Your task to perform on an android device: Search for Mexican restaurants on Maps Image 0: 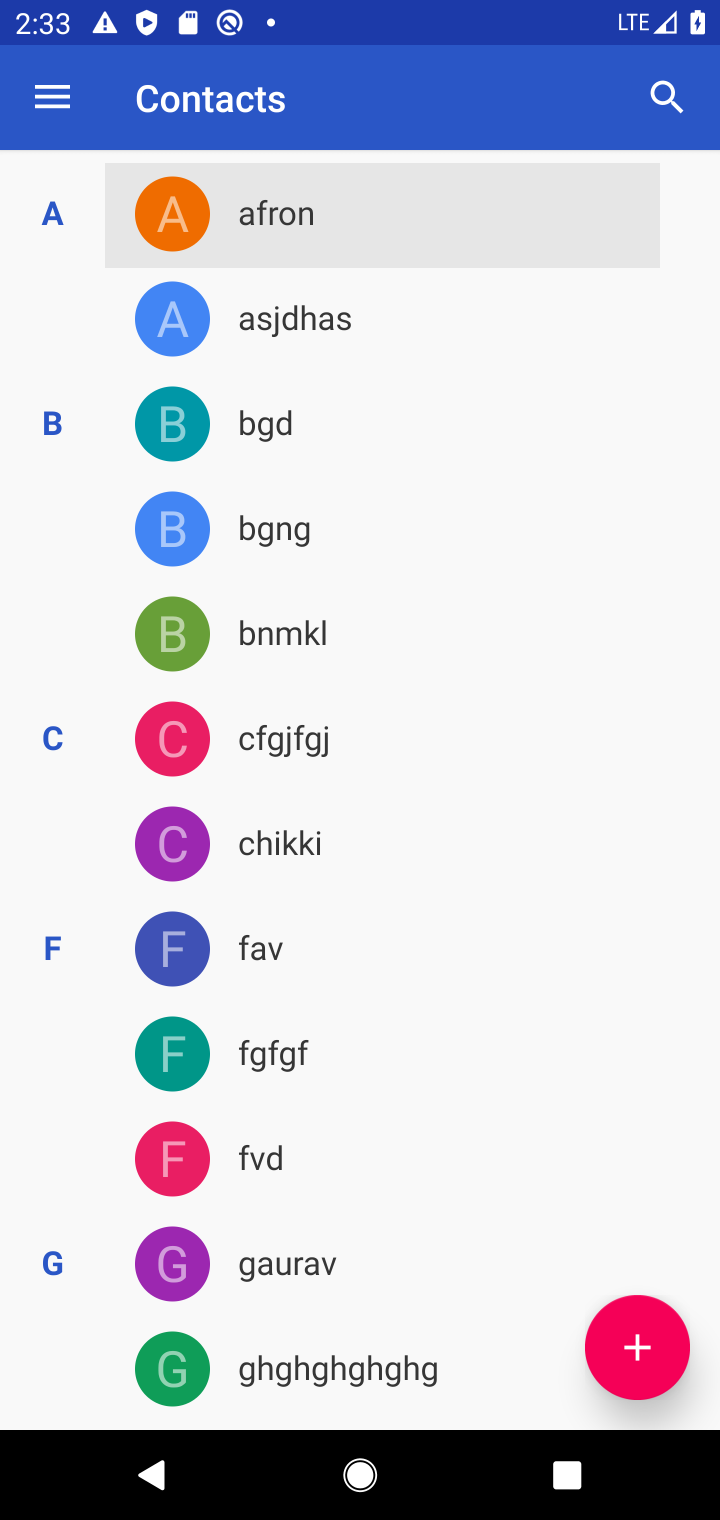
Step 0: press back button
Your task to perform on an android device: Search for Mexican restaurants on Maps Image 1: 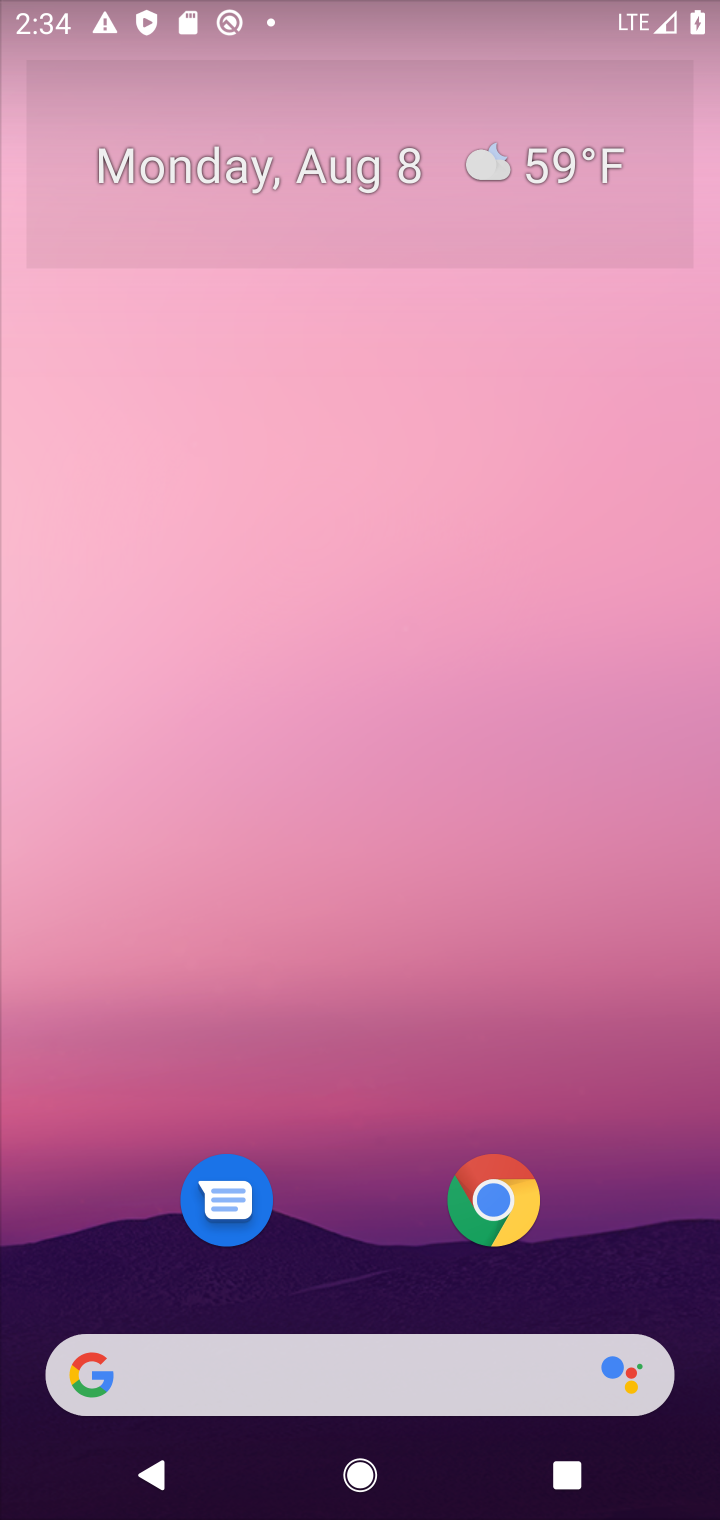
Step 1: drag from (298, 1012) to (489, 159)
Your task to perform on an android device: Search for Mexican restaurants on Maps Image 2: 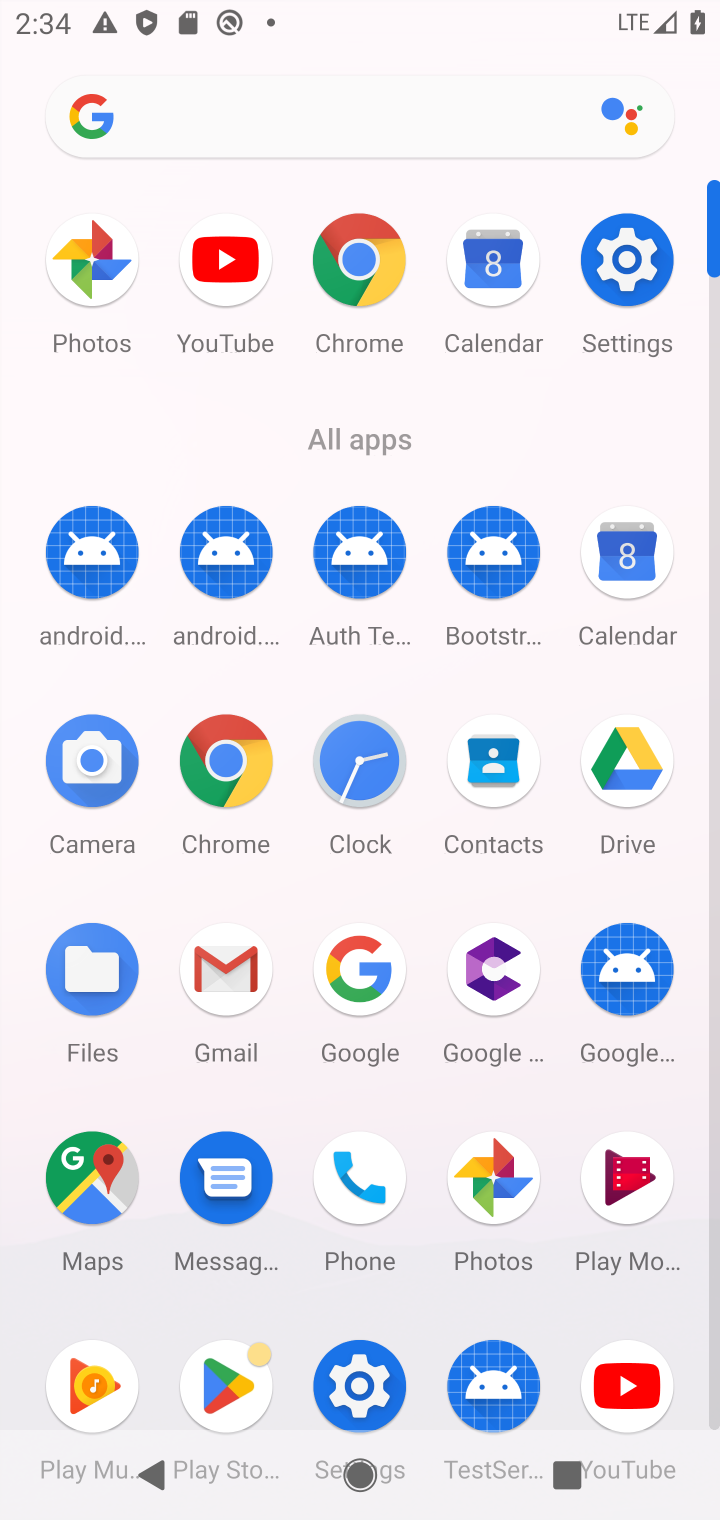
Step 2: click (94, 1177)
Your task to perform on an android device: Search for Mexican restaurants on Maps Image 3: 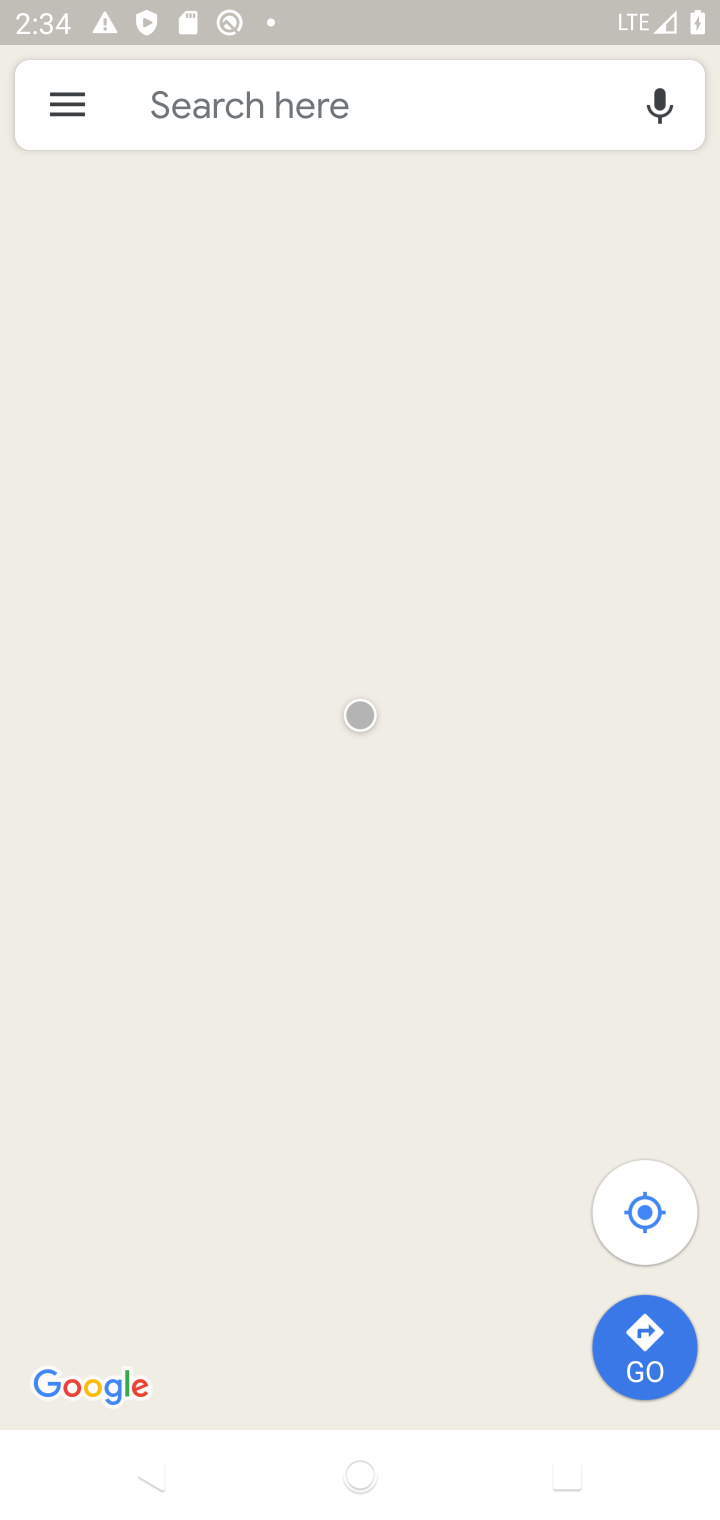
Step 3: click (247, 98)
Your task to perform on an android device: Search for Mexican restaurants on Maps Image 4: 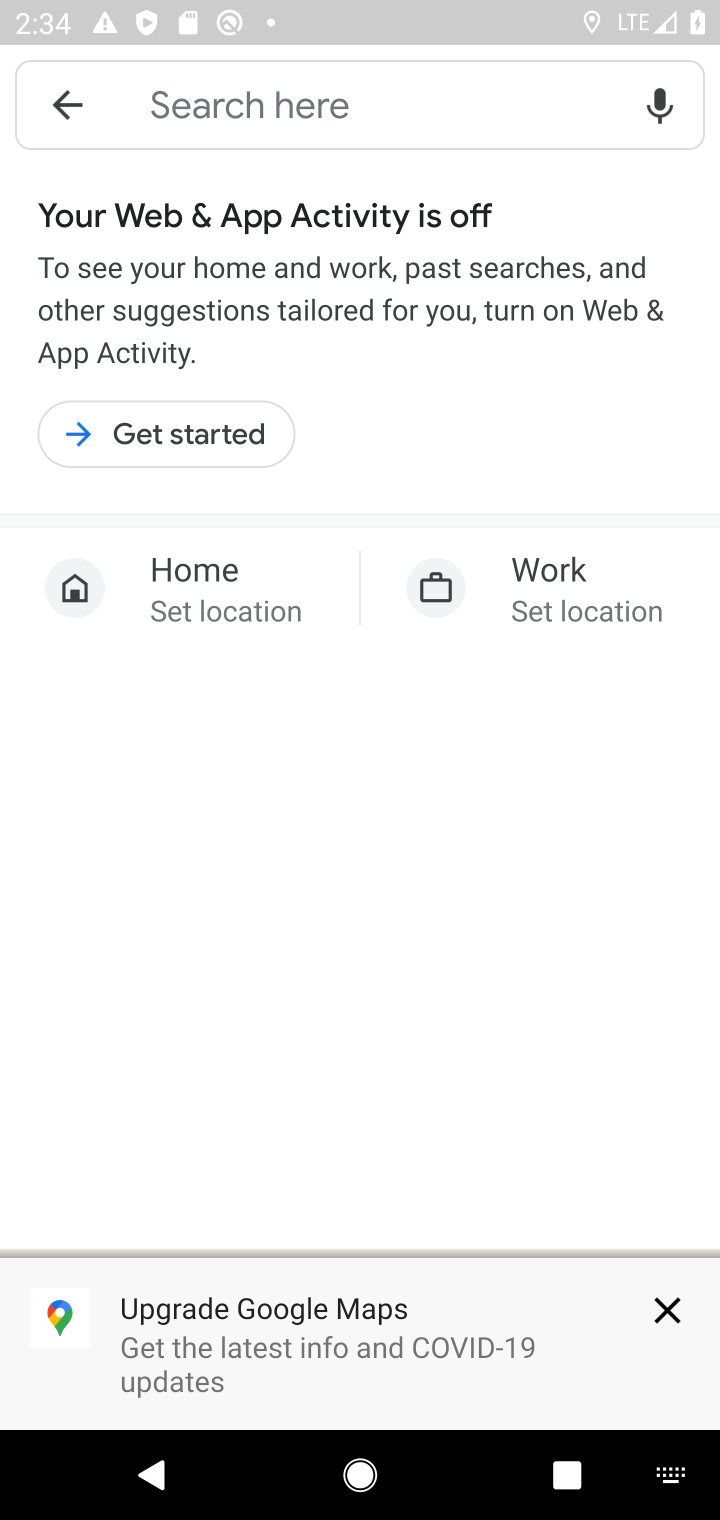
Step 4: type "mexican restaurants"
Your task to perform on an android device: Search for Mexican restaurants on Maps Image 5: 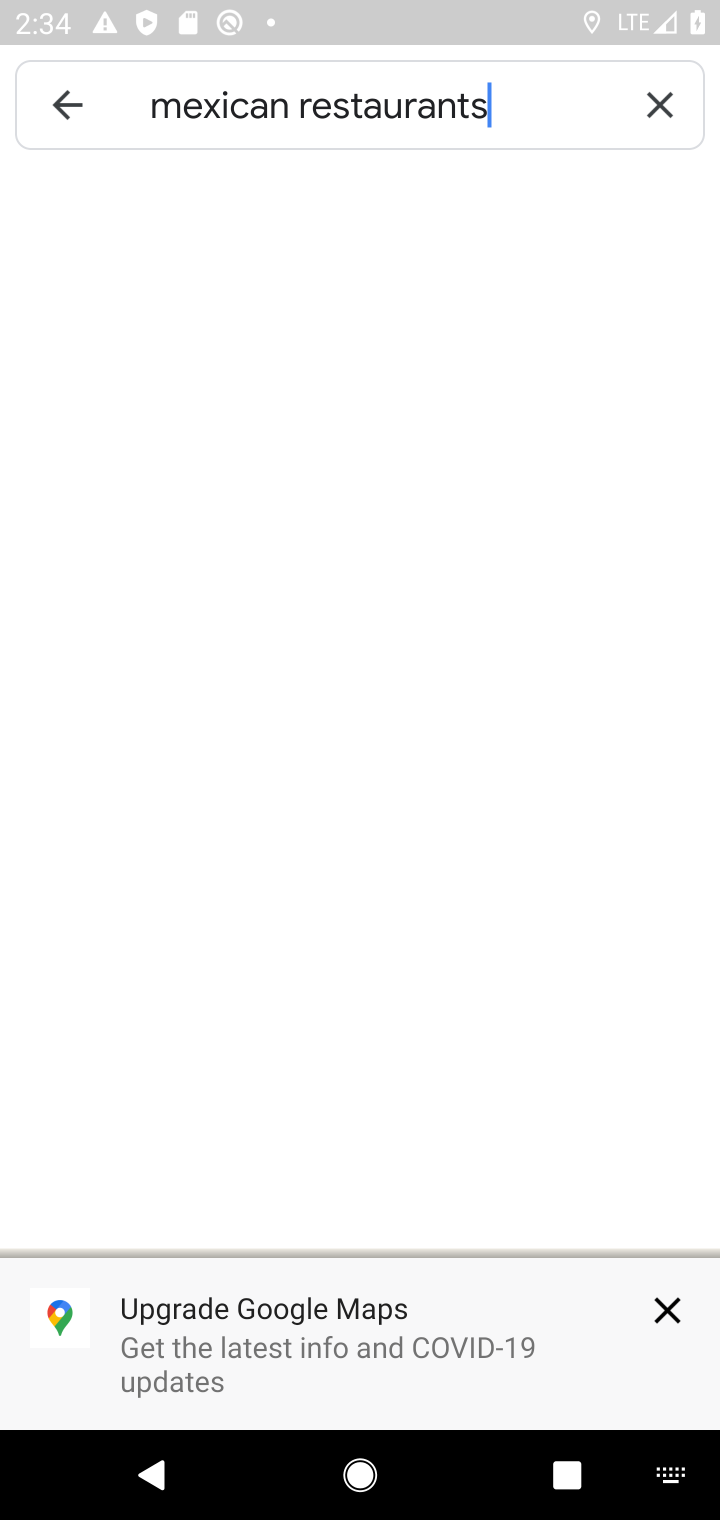
Step 5: click (344, 111)
Your task to perform on an android device: Search for Mexican restaurants on Maps Image 6: 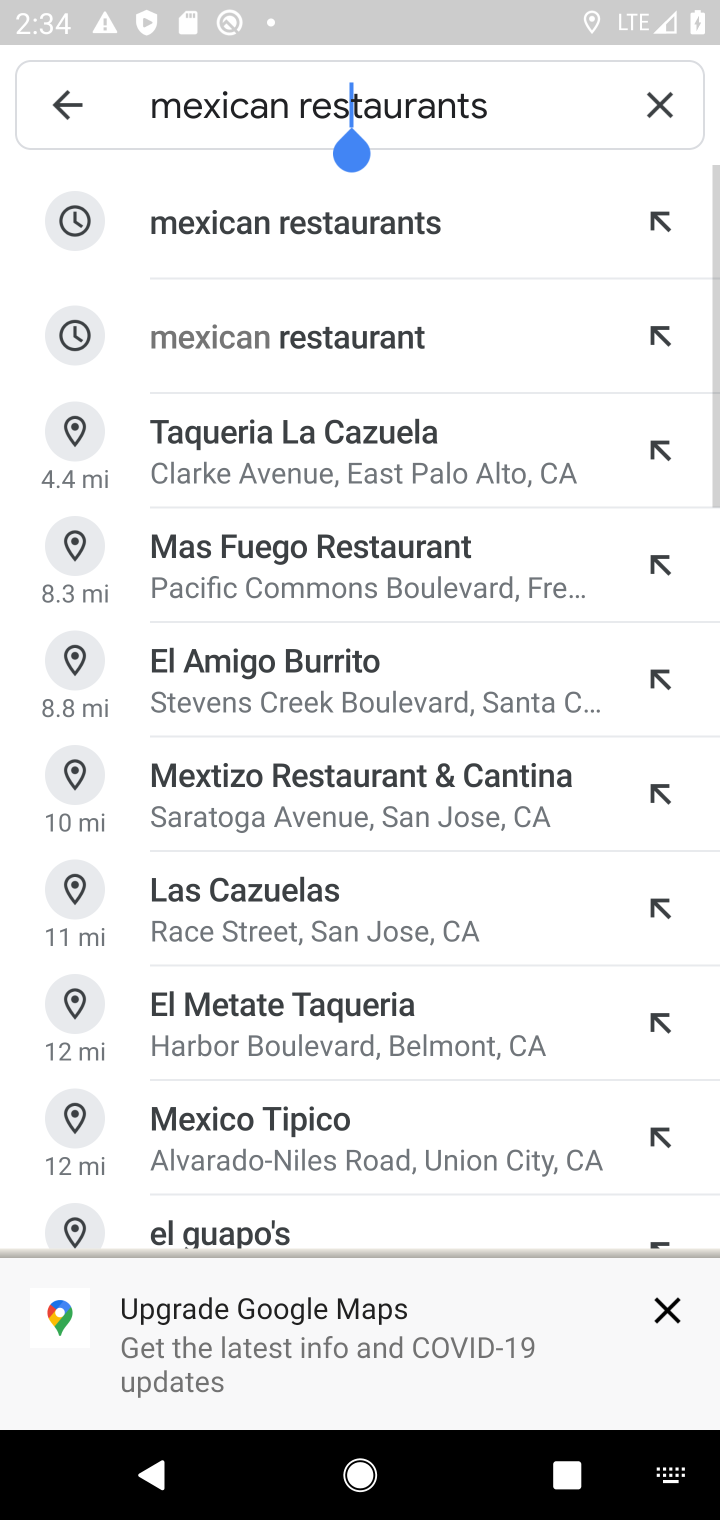
Step 6: click (298, 193)
Your task to perform on an android device: Search for Mexican restaurants on Maps Image 7: 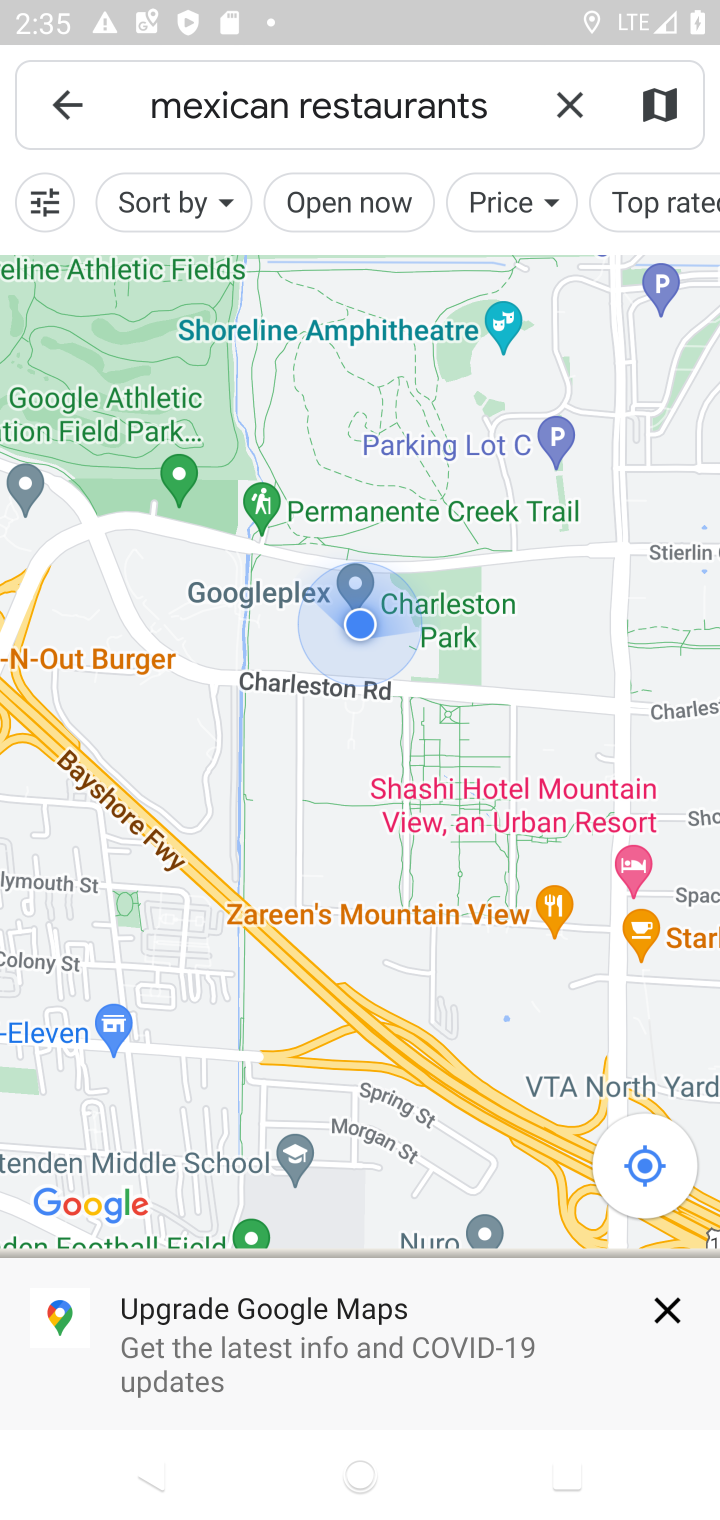
Step 7: click (539, 109)
Your task to perform on an android device: Search for Mexican restaurants on Maps Image 8: 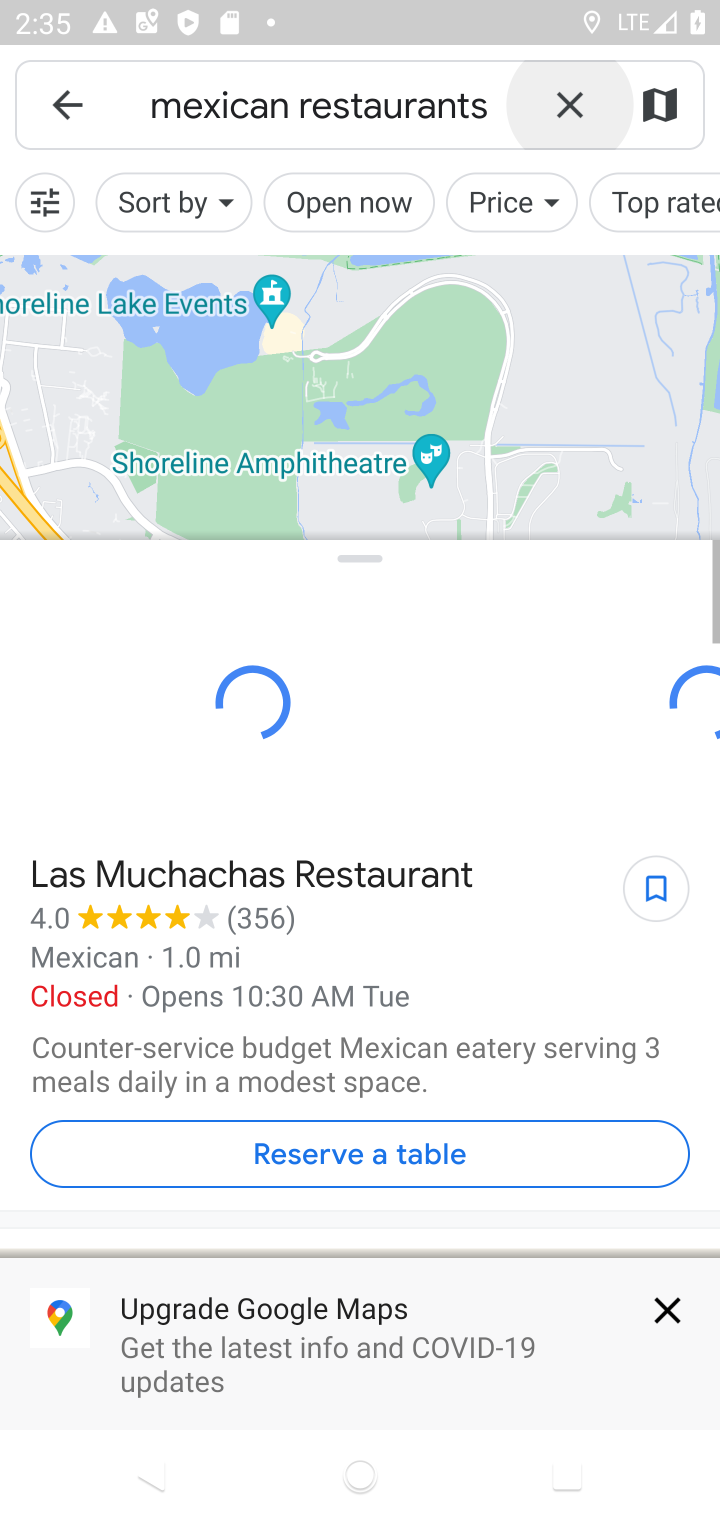
Step 8: task complete